Your task to perform on an android device: add a contact Image 0: 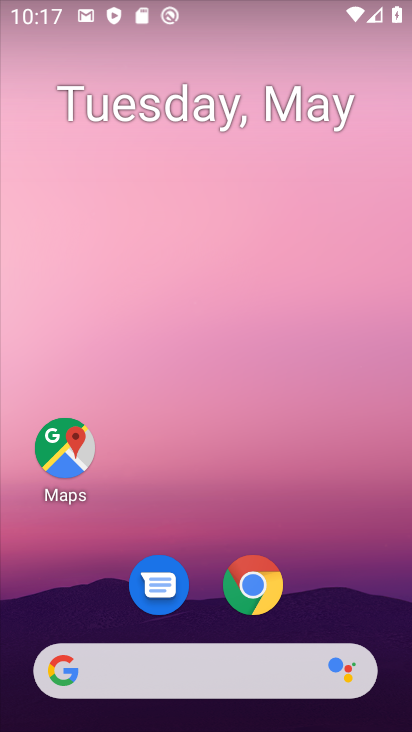
Step 0: drag from (335, 510) to (354, 55)
Your task to perform on an android device: add a contact Image 1: 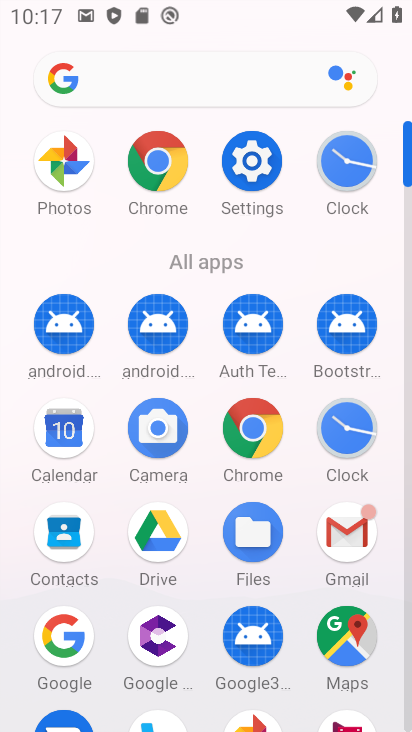
Step 1: click (82, 529)
Your task to perform on an android device: add a contact Image 2: 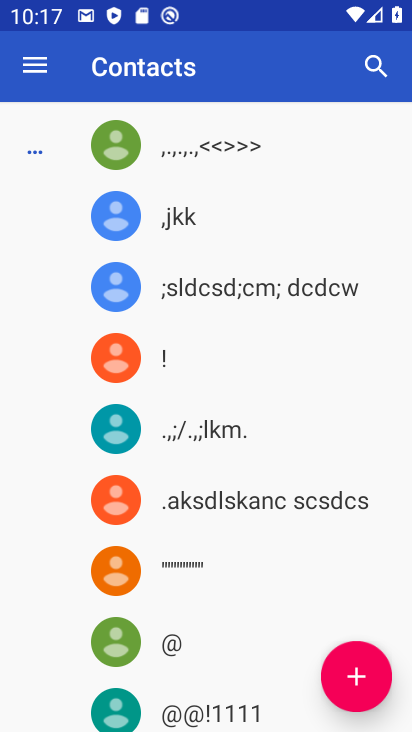
Step 2: click (358, 680)
Your task to perform on an android device: add a contact Image 3: 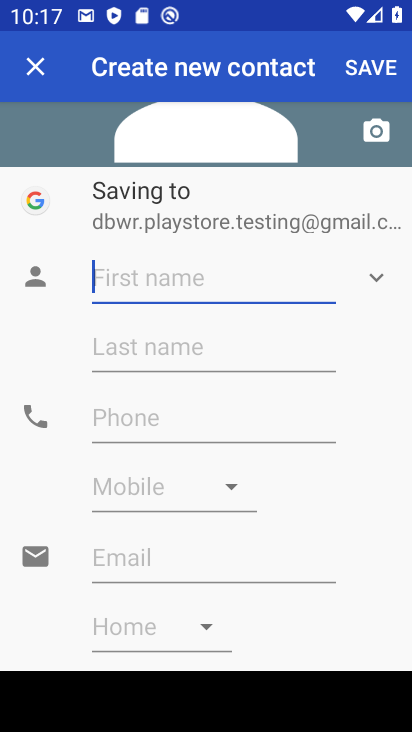
Step 3: type "Varahmihir"
Your task to perform on an android device: add a contact Image 4: 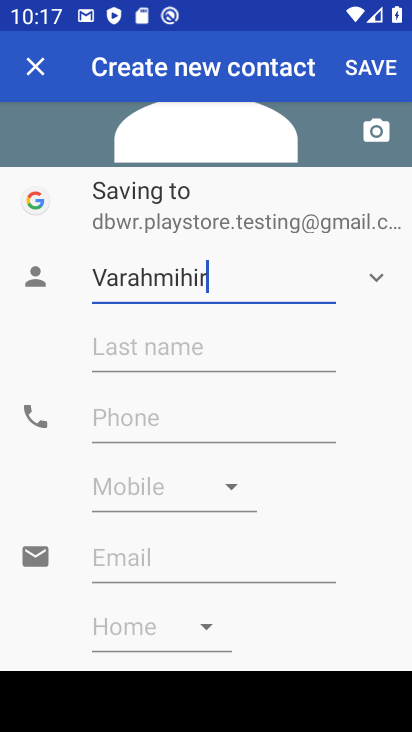
Step 4: click (227, 351)
Your task to perform on an android device: add a contact Image 5: 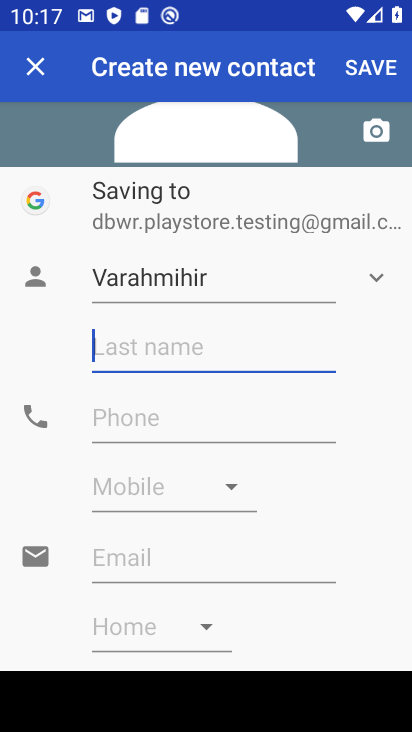
Step 5: type "Vamanavtaar"
Your task to perform on an android device: add a contact Image 6: 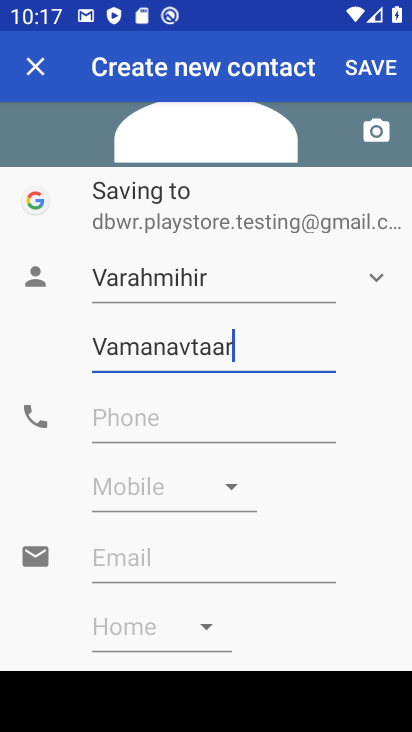
Step 6: click (240, 432)
Your task to perform on an android device: add a contact Image 7: 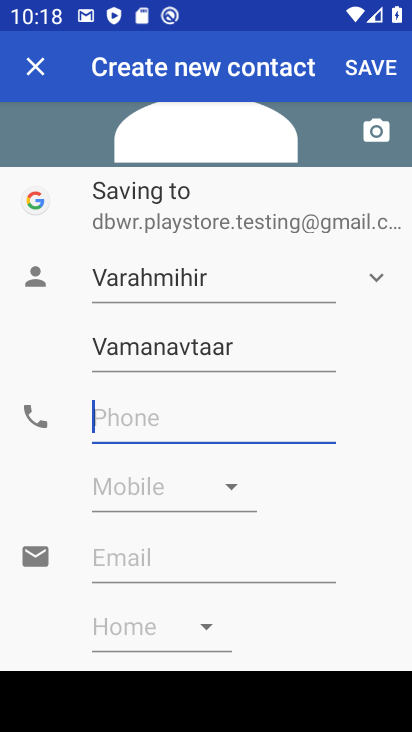
Step 7: type "919977553311"
Your task to perform on an android device: add a contact Image 8: 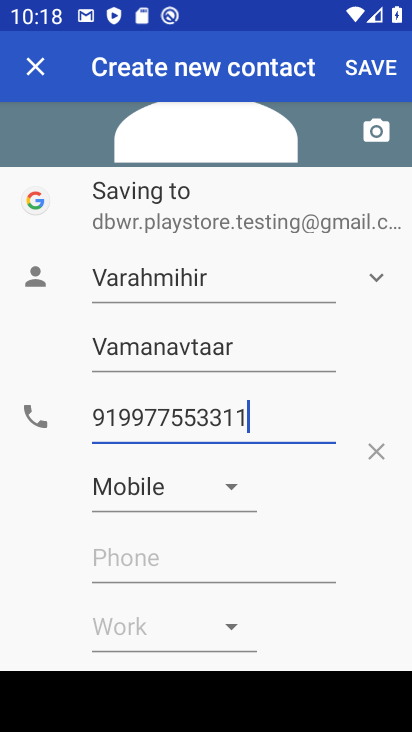
Step 8: click (381, 60)
Your task to perform on an android device: add a contact Image 9: 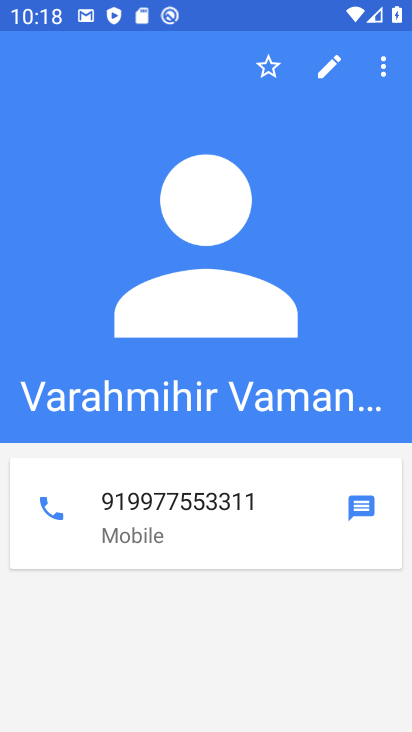
Step 9: task complete